Your task to perform on an android device: allow cookies in the chrome app Image 0: 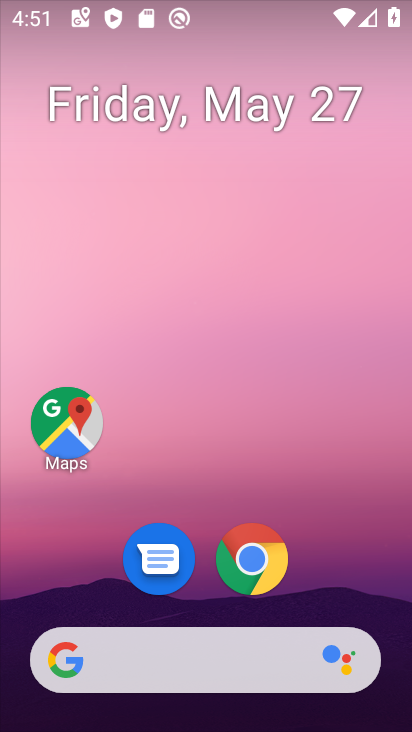
Step 0: click (261, 552)
Your task to perform on an android device: allow cookies in the chrome app Image 1: 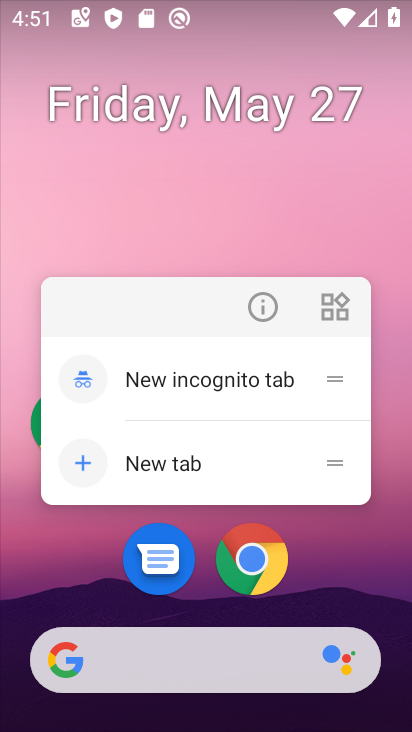
Step 1: click (306, 561)
Your task to perform on an android device: allow cookies in the chrome app Image 2: 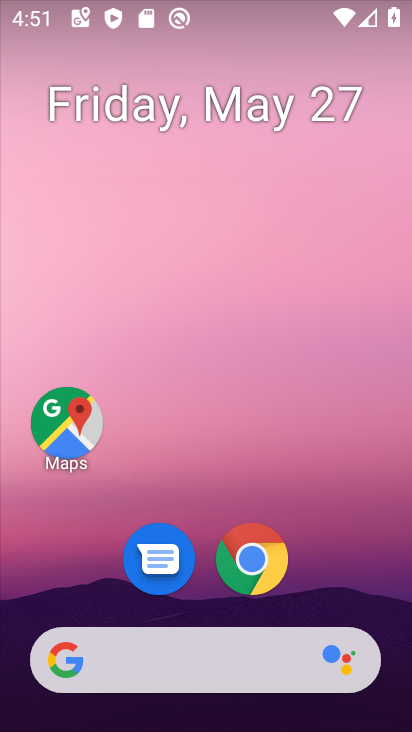
Step 2: drag from (309, 592) to (289, 98)
Your task to perform on an android device: allow cookies in the chrome app Image 3: 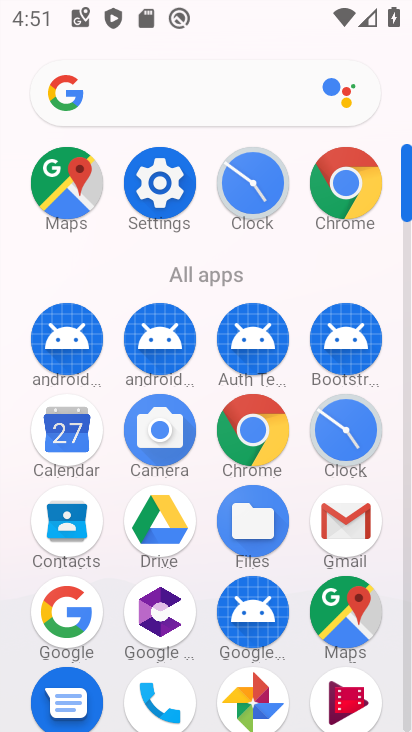
Step 3: click (249, 428)
Your task to perform on an android device: allow cookies in the chrome app Image 4: 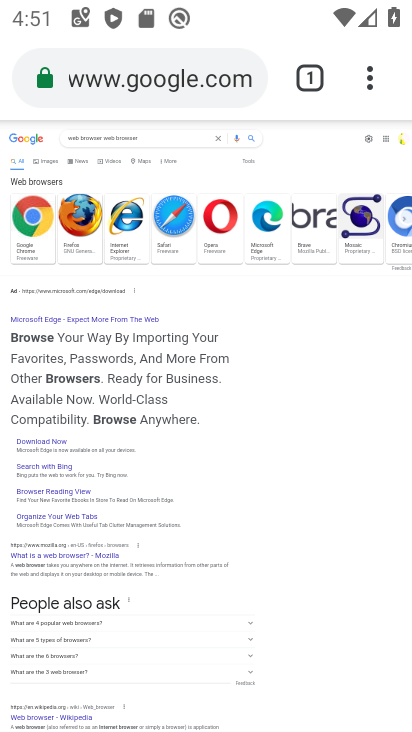
Step 4: drag from (371, 80) to (117, 617)
Your task to perform on an android device: allow cookies in the chrome app Image 5: 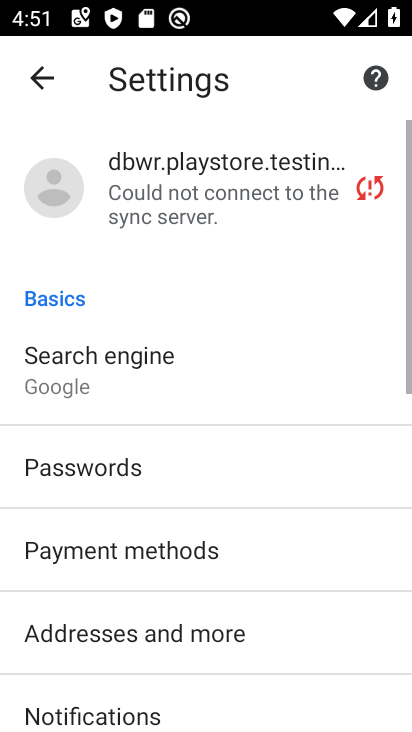
Step 5: drag from (153, 648) to (152, 207)
Your task to perform on an android device: allow cookies in the chrome app Image 6: 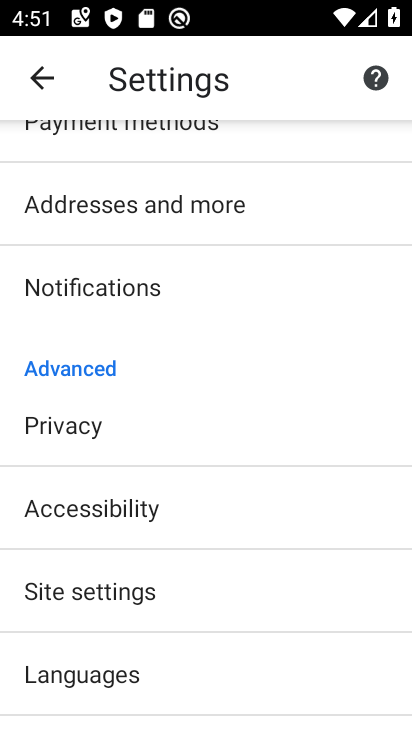
Step 6: click (89, 591)
Your task to perform on an android device: allow cookies in the chrome app Image 7: 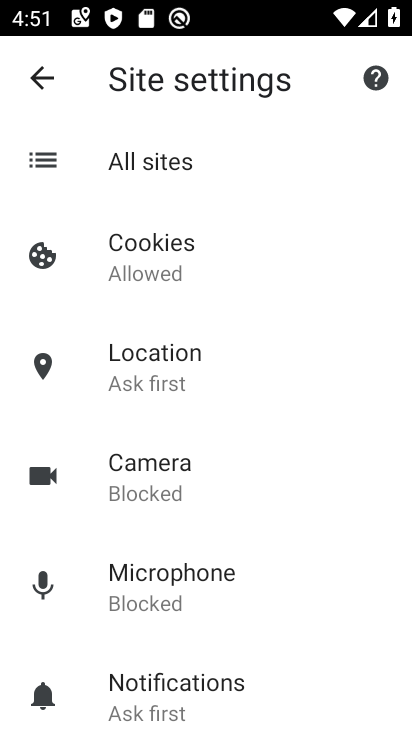
Step 7: click (170, 278)
Your task to perform on an android device: allow cookies in the chrome app Image 8: 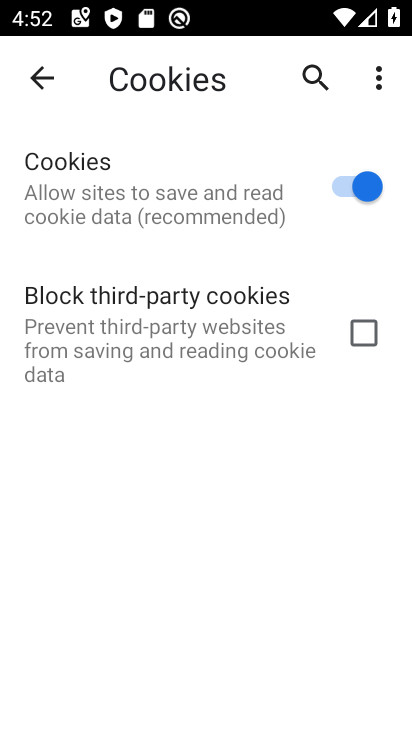
Step 8: task complete